Your task to perform on an android device: turn on improve location accuracy Image 0: 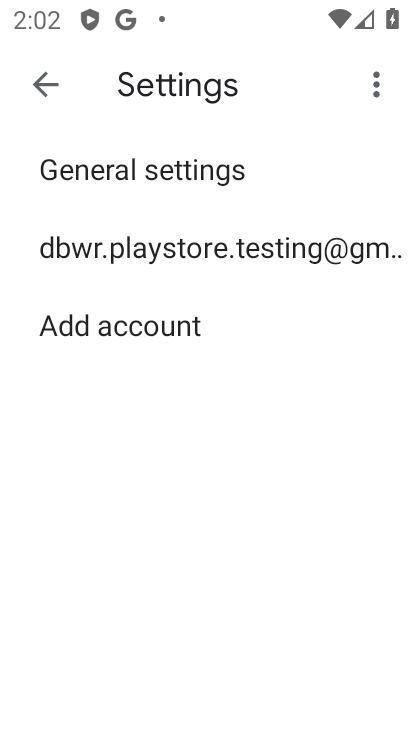
Step 0: press home button
Your task to perform on an android device: turn on improve location accuracy Image 1: 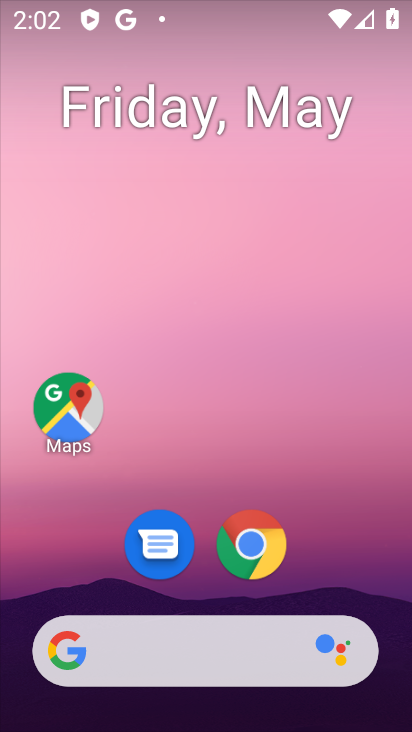
Step 1: drag from (239, 583) to (214, 96)
Your task to perform on an android device: turn on improve location accuracy Image 2: 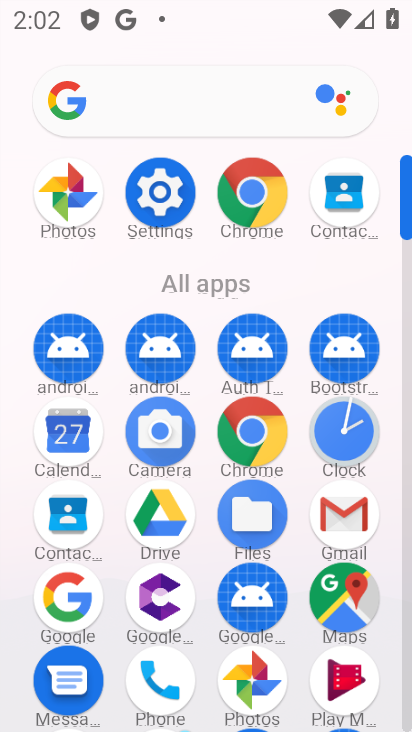
Step 2: click (163, 215)
Your task to perform on an android device: turn on improve location accuracy Image 3: 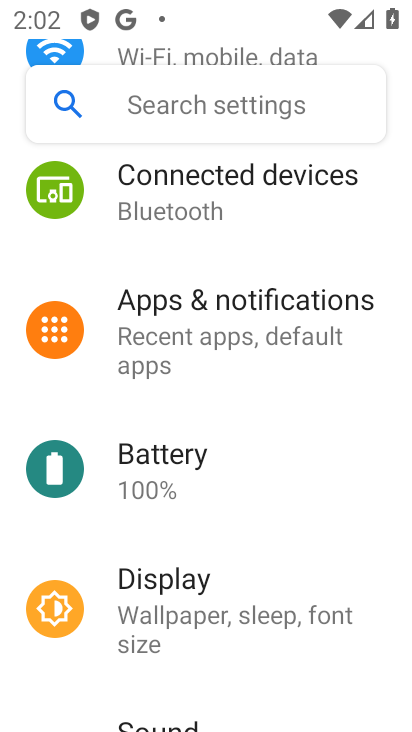
Step 3: drag from (248, 614) to (304, 248)
Your task to perform on an android device: turn on improve location accuracy Image 4: 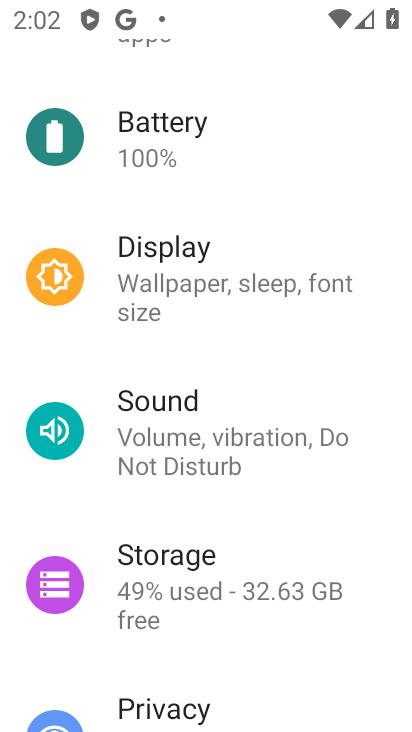
Step 4: drag from (261, 619) to (326, 302)
Your task to perform on an android device: turn on improve location accuracy Image 5: 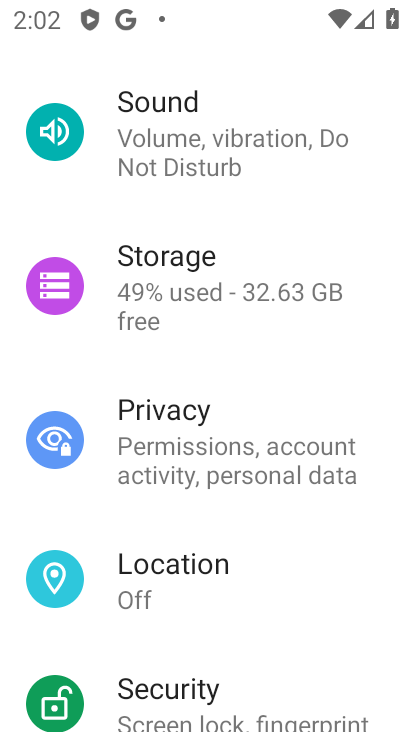
Step 5: click (227, 547)
Your task to perform on an android device: turn on improve location accuracy Image 6: 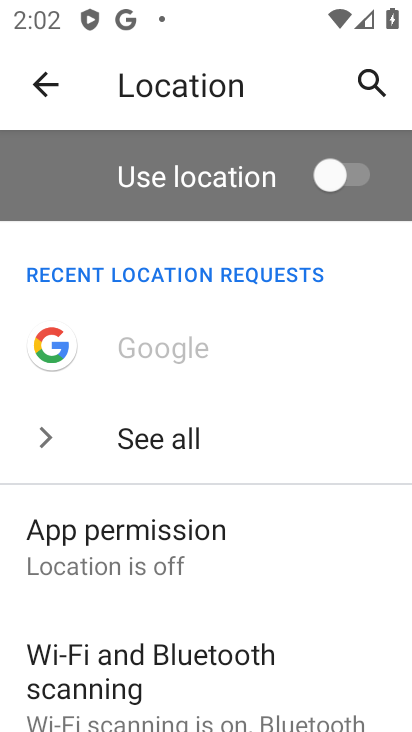
Step 6: drag from (221, 608) to (236, 282)
Your task to perform on an android device: turn on improve location accuracy Image 7: 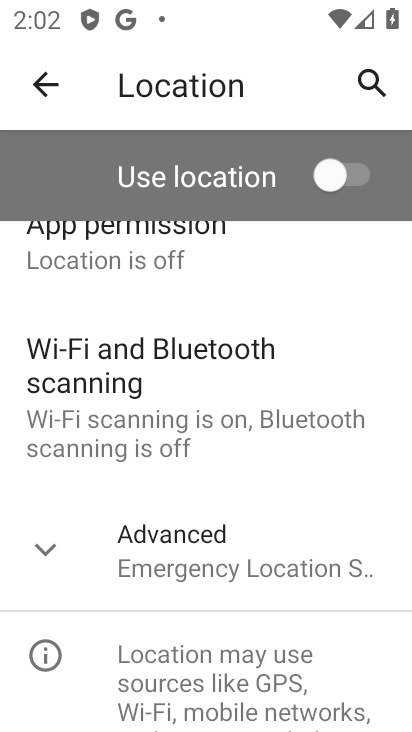
Step 7: click (214, 558)
Your task to perform on an android device: turn on improve location accuracy Image 8: 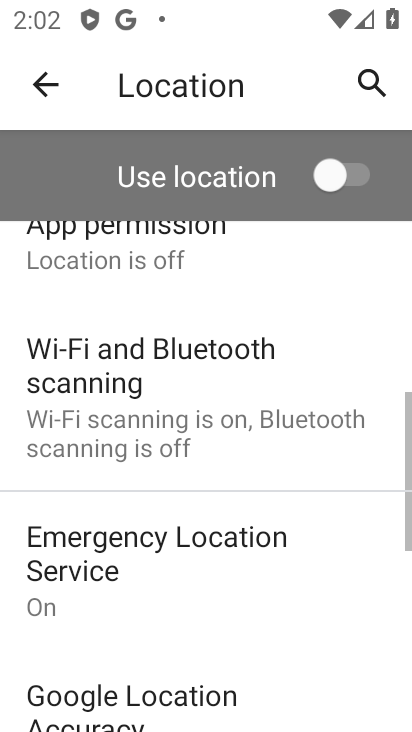
Step 8: drag from (243, 629) to (301, 384)
Your task to perform on an android device: turn on improve location accuracy Image 9: 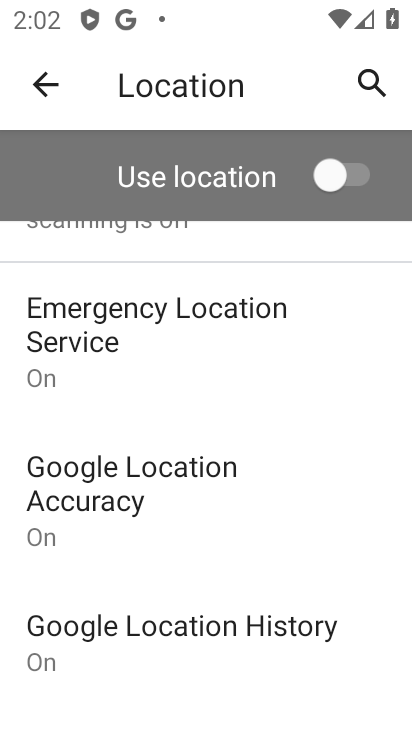
Step 9: click (201, 497)
Your task to perform on an android device: turn on improve location accuracy Image 10: 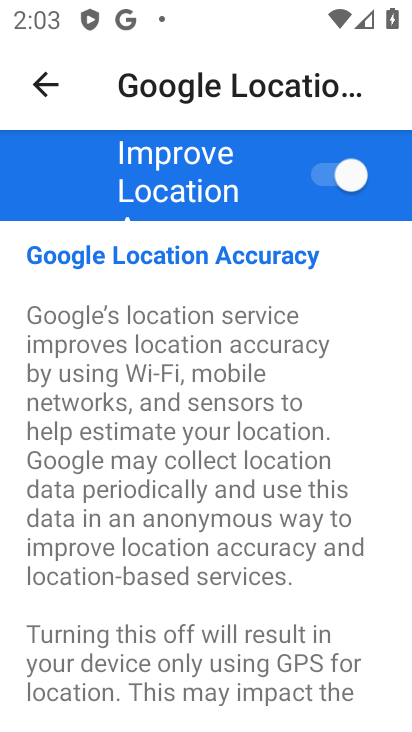
Step 10: task complete